Your task to perform on an android device: toggle javascript in the chrome app Image 0: 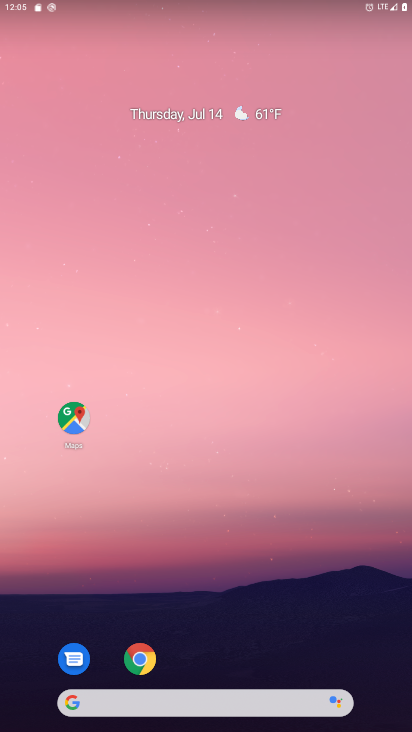
Step 0: press home button
Your task to perform on an android device: toggle javascript in the chrome app Image 1: 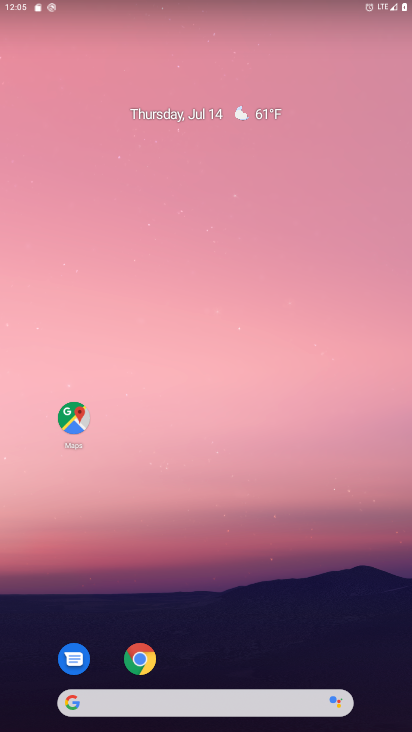
Step 1: click (138, 654)
Your task to perform on an android device: toggle javascript in the chrome app Image 2: 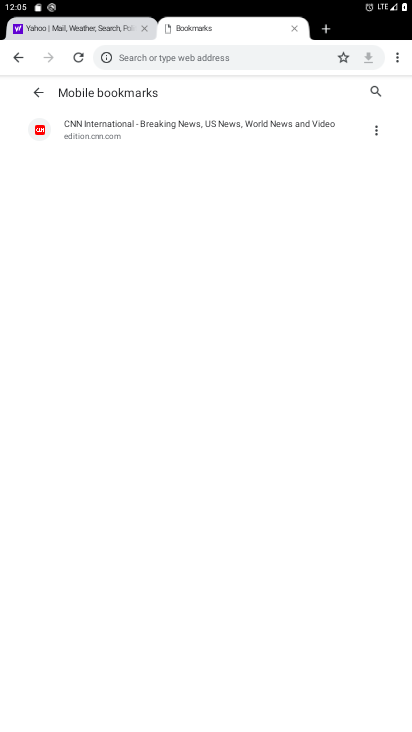
Step 2: click (394, 59)
Your task to perform on an android device: toggle javascript in the chrome app Image 3: 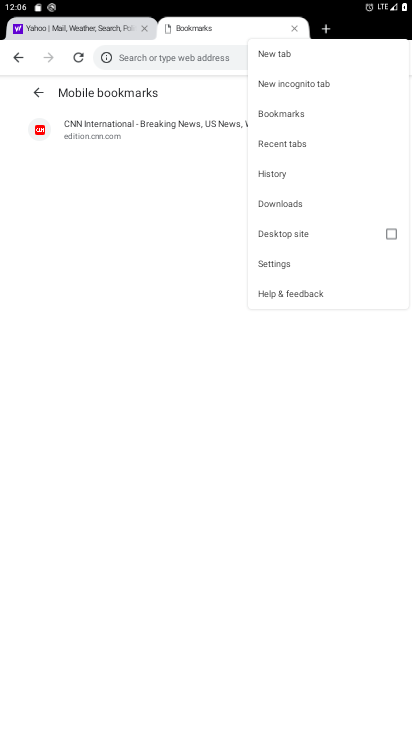
Step 3: click (299, 257)
Your task to perform on an android device: toggle javascript in the chrome app Image 4: 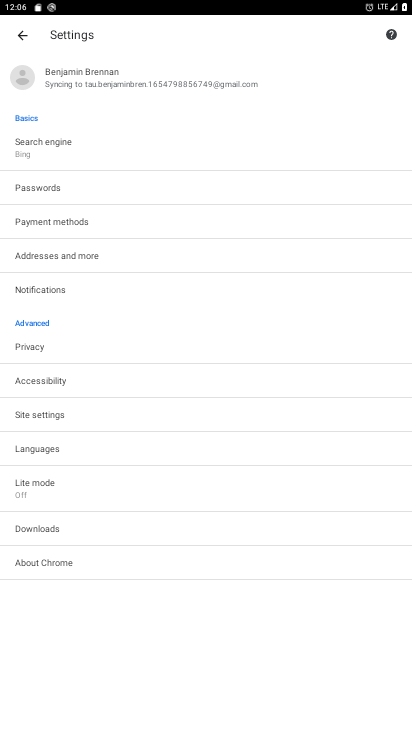
Step 4: click (70, 408)
Your task to perform on an android device: toggle javascript in the chrome app Image 5: 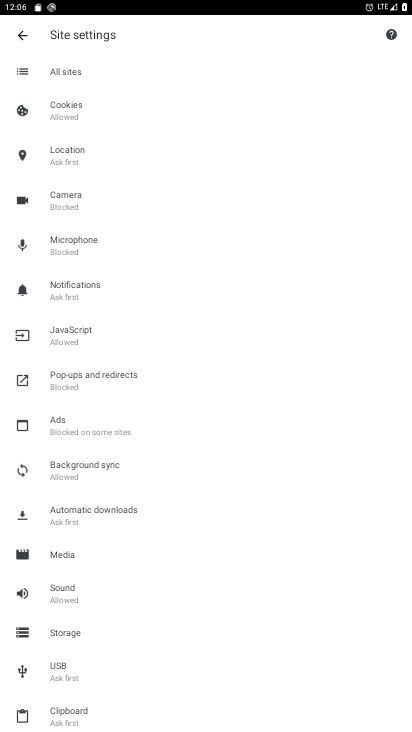
Step 5: click (104, 335)
Your task to perform on an android device: toggle javascript in the chrome app Image 6: 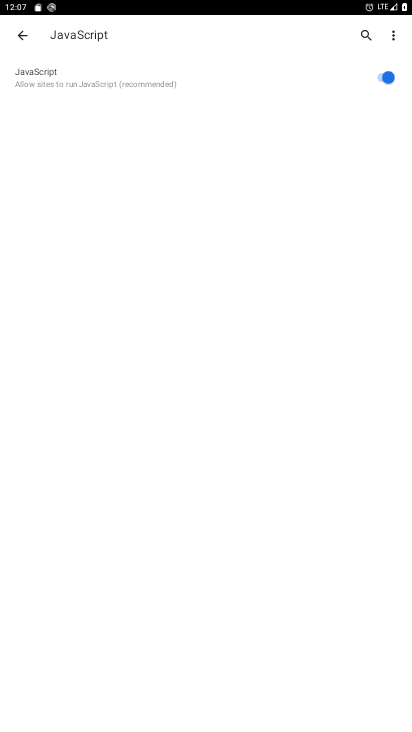
Step 6: task complete